Your task to perform on an android device: check data usage Image 0: 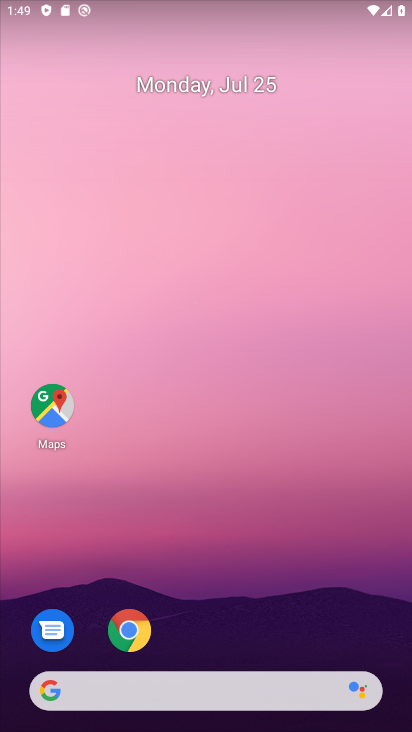
Step 0: drag from (232, 663) to (220, 222)
Your task to perform on an android device: check data usage Image 1: 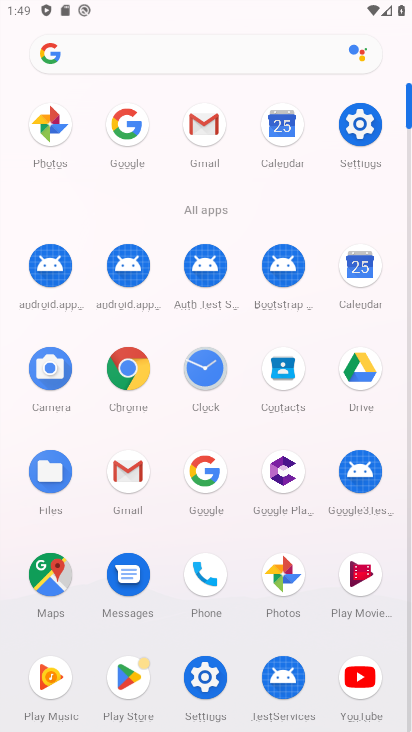
Step 1: click (212, 694)
Your task to perform on an android device: check data usage Image 2: 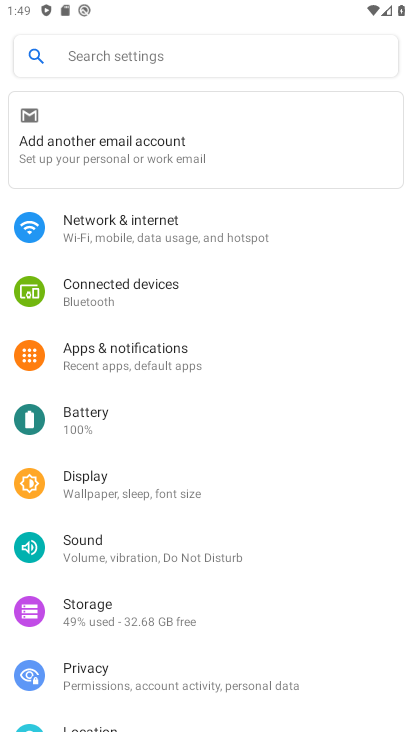
Step 2: click (198, 247)
Your task to perform on an android device: check data usage Image 3: 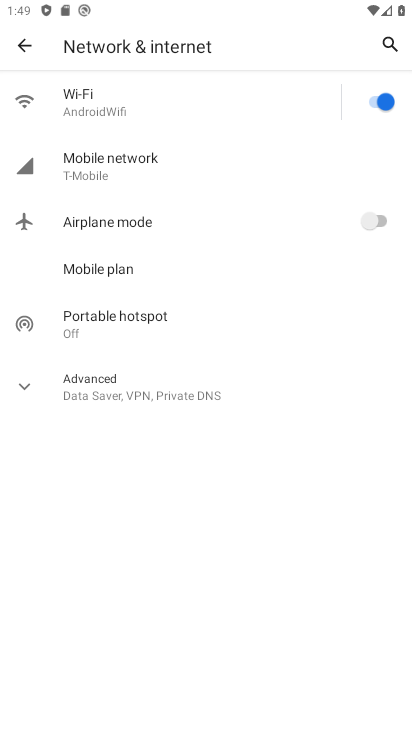
Step 3: click (188, 105)
Your task to perform on an android device: check data usage Image 4: 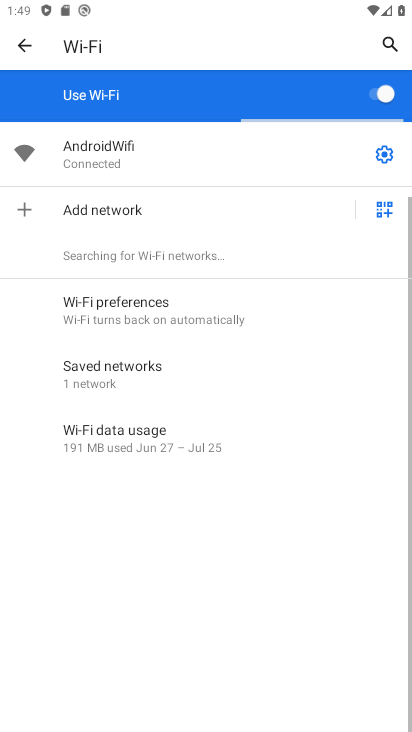
Step 4: click (167, 452)
Your task to perform on an android device: check data usage Image 5: 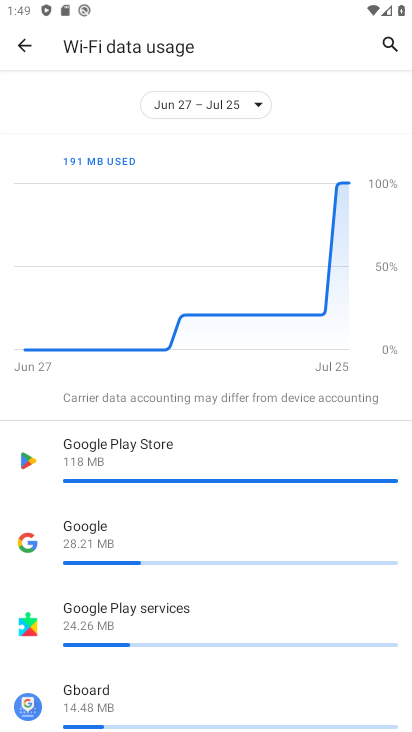
Step 5: task complete